Your task to perform on an android device: turn off notifications in google photos Image 0: 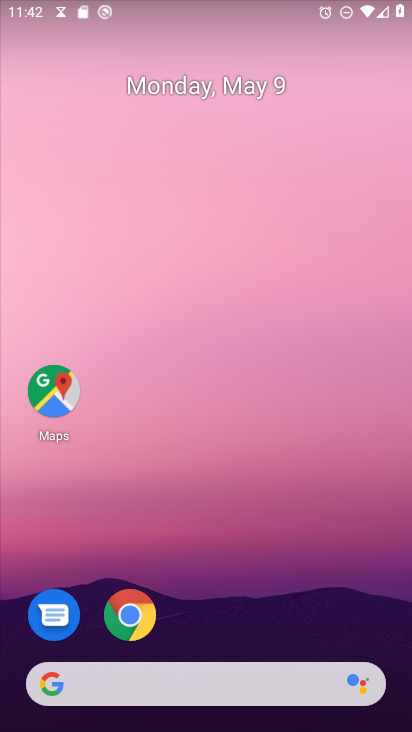
Step 0: drag from (219, 712) to (222, 236)
Your task to perform on an android device: turn off notifications in google photos Image 1: 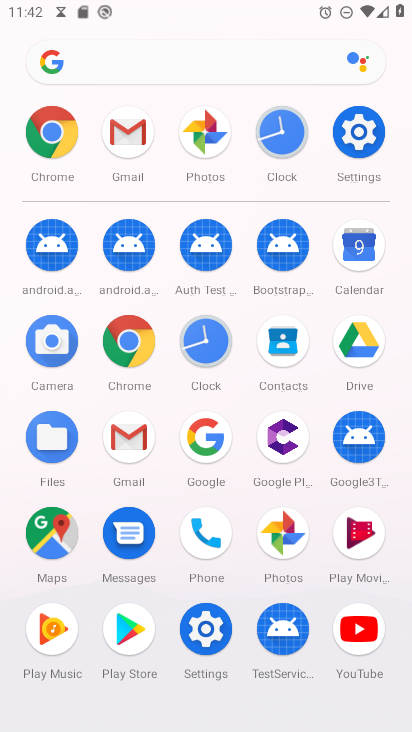
Step 1: click (286, 539)
Your task to perform on an android device: turn off notifications in google photos Image 2: 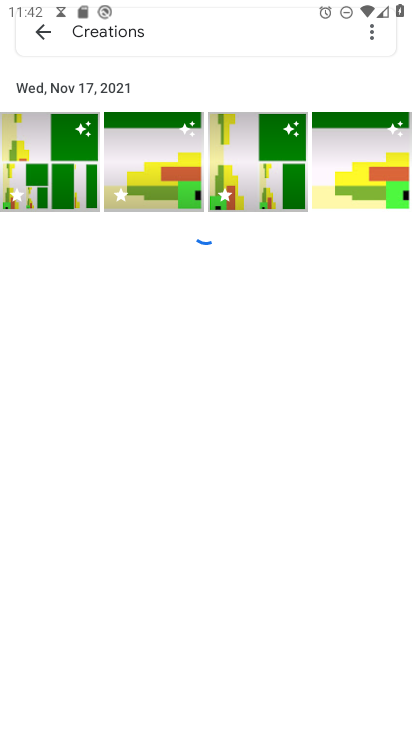
Step 2: click (39, 31)
Your task to perform on an android device: turn off notifications in google photos Image 3: 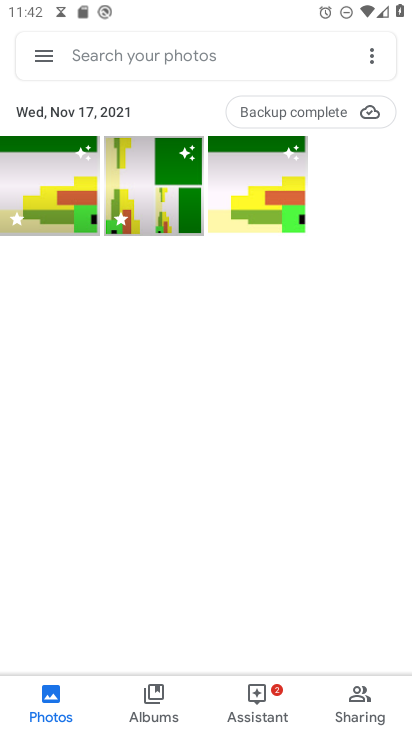
Step 3: click (40, 56)
Your task to perform on an android device: turn off notifications in google photos Image 4: 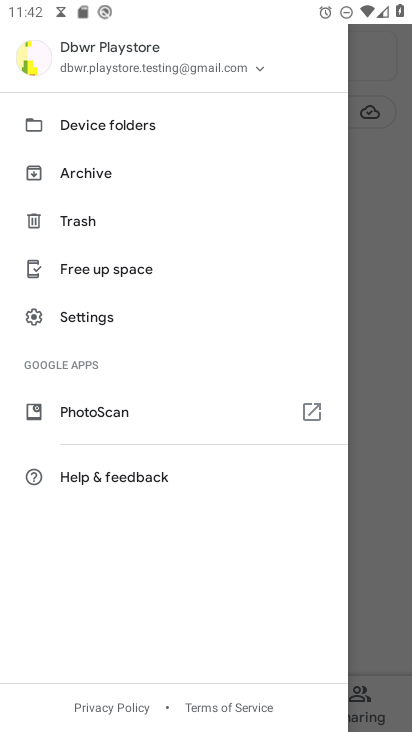
Step 4: click (86, 316)
Your task to perform on an android device: turn off notifications in google photos Image 5: 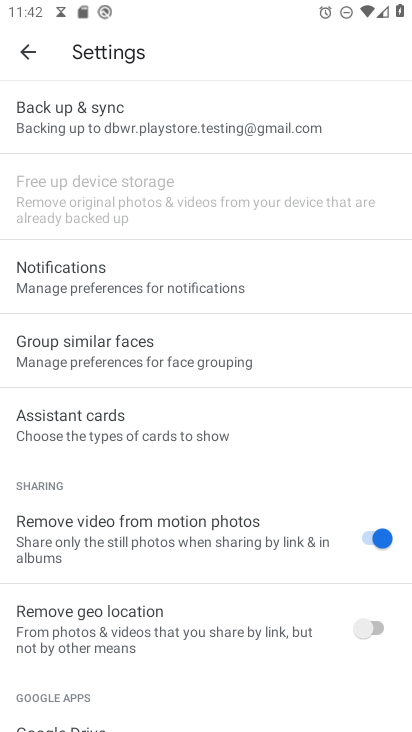
Step 5: click (108, 286)
Your task to perform on an android device: turn off notifications in google photos Image 6: 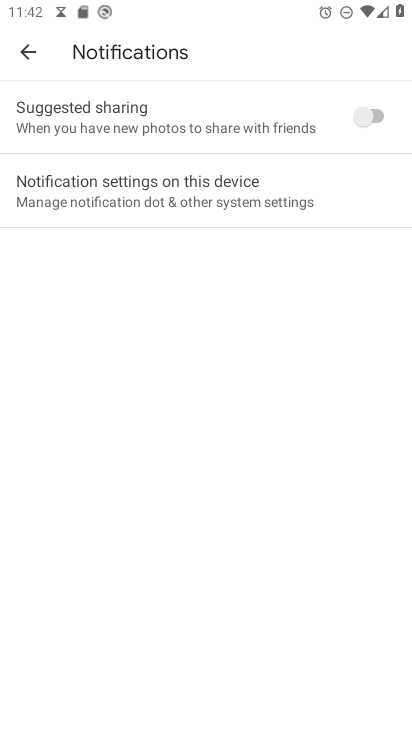
Step 6: click (196, 196)
Your task to perform on an android device: turn off notifications in google photos Image 7: 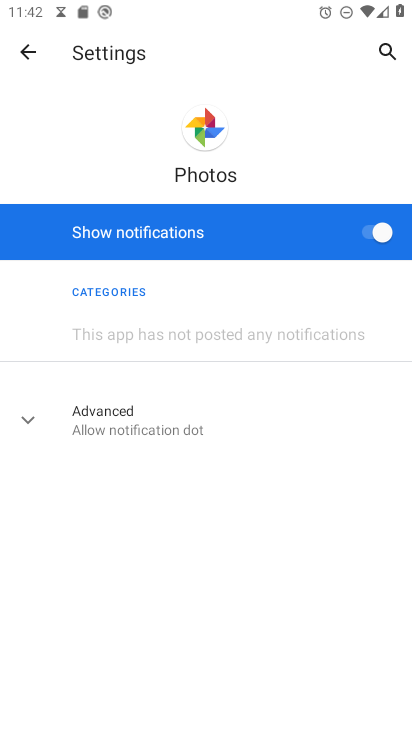
Step 7: click (370, 229)
Your task to perform on an android device: turn off notifications in google photos Image 8: 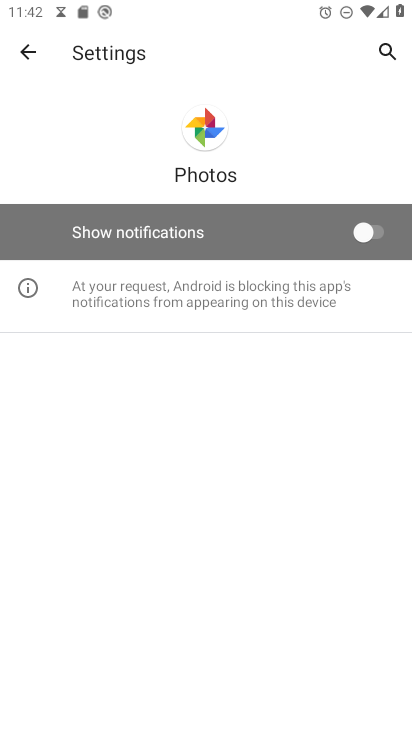
Step 8: task complete